Your task to perform on an android device: Open the map Image 0: 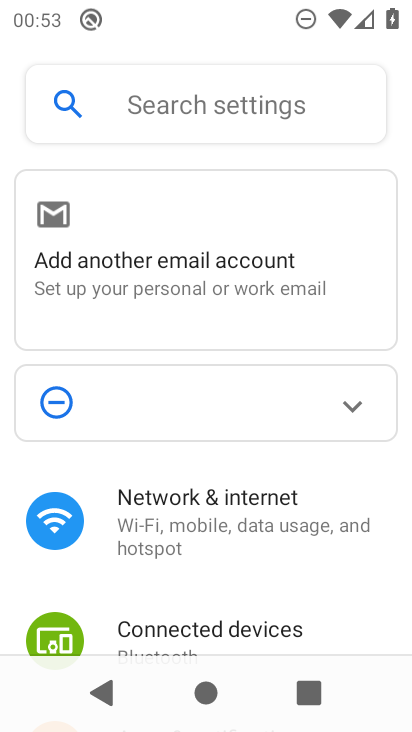
Step 0: drag from (185, 540) to (264, 276)
Your task to perform on an android device: Open the map Image 1: 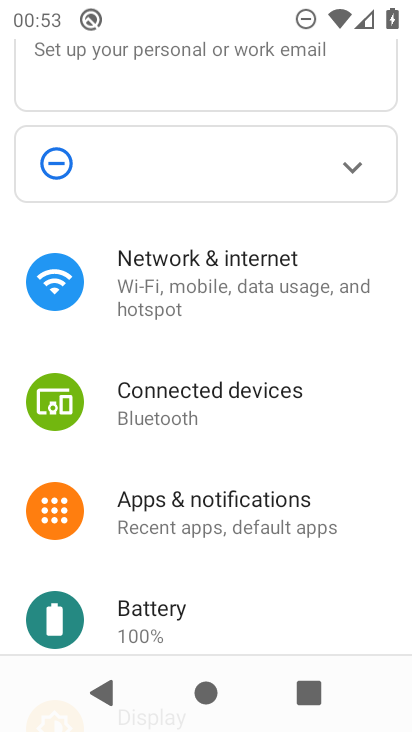
Step 1: drag from (240, 598) to (261, 289)
Your task to perform on an android device: Open the map Image 2: 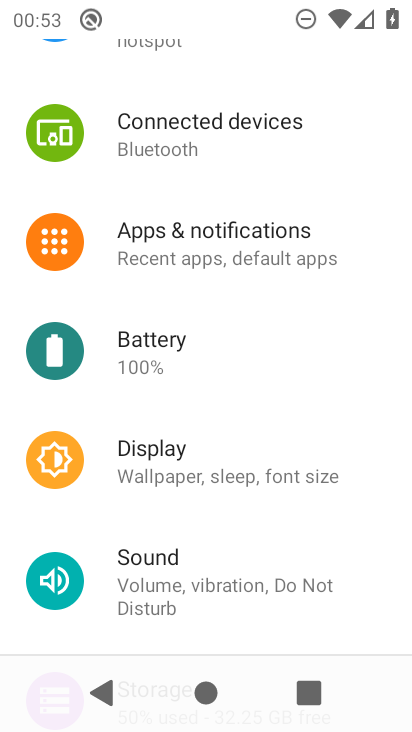
Step 2: drag from (257, 249) to (388, 625)
Your task to perform on an android device: Open the map Image 3: 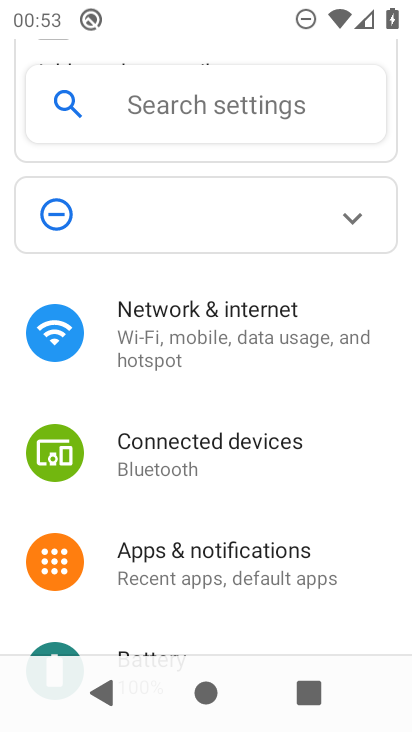
Step 3: press home button
Your task to perform on an android device: Open the map Image 4: 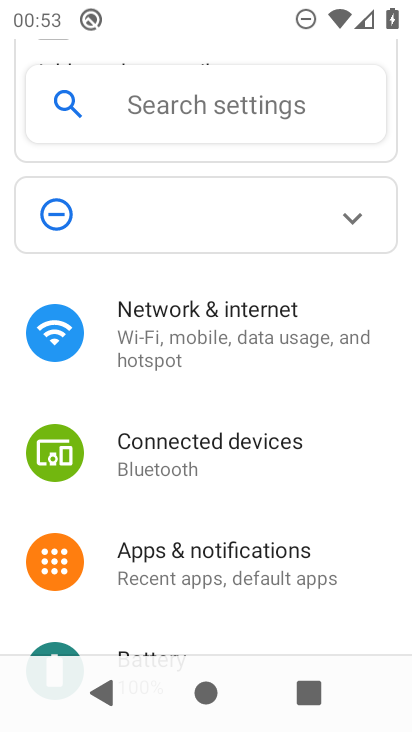
Step 4: drag from (388, 625) to (399, 514)
Your task to perform on an android device: Open the map Image 5: 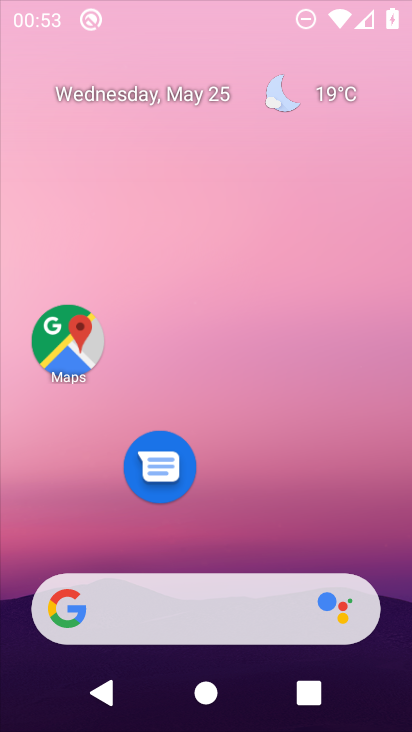
Step 5: drag from (210, 556) to (344, 104)
Your task to perform on an android device: Open the map Image 6: 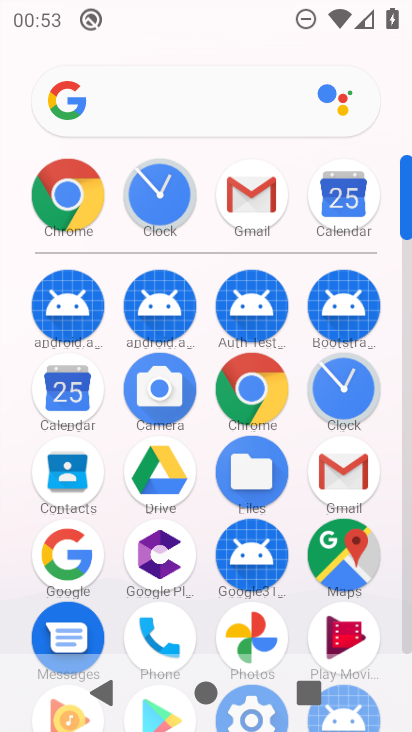
Step 6: click (336, 543)
Your task to perform on an android device: Open the map Image 7: 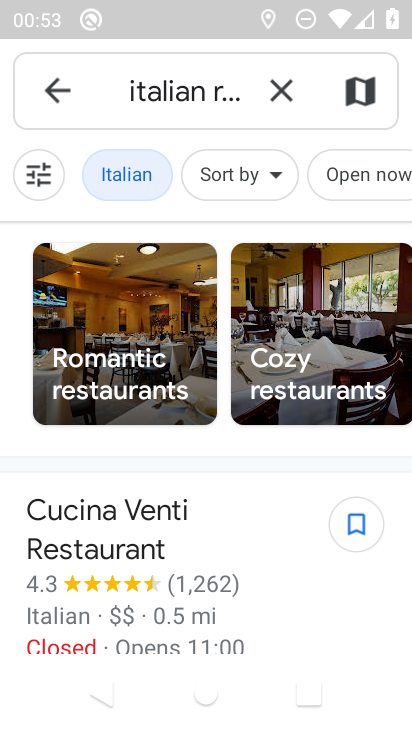
Step 7: task complete